Your task to perform on an android device: turn off picture-in-picture Image 0: 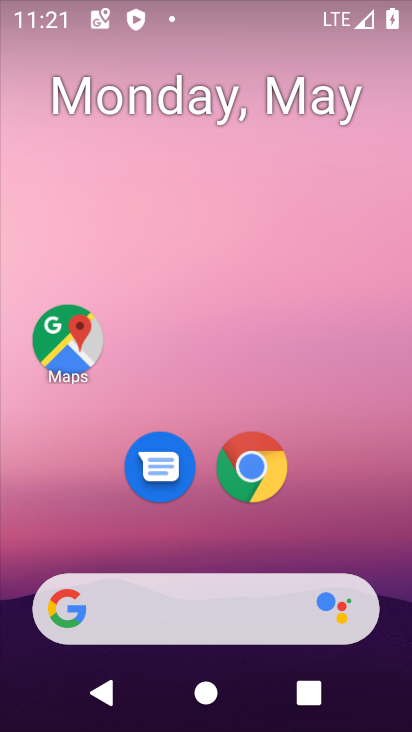
Step 0: click (244, 471)
Your task to perform on an android device: turn off picture-in-picture Image 1: 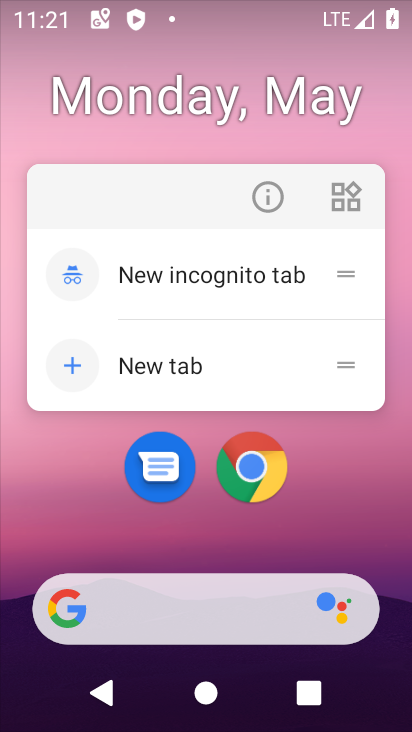
Step 1: click (270, 199)
Your task to perform on an android device: turn off picture-in-picture Image 2: 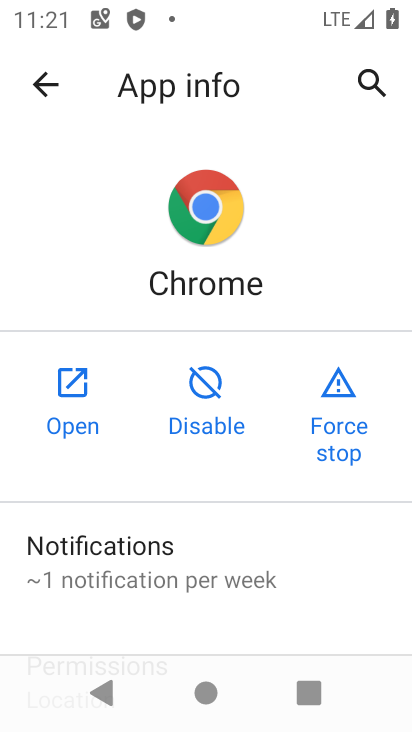
Step 2: drag from (250, 624) to (241, 246)
Your task to perform on an android device: turn off picture-in-picture Image 3: 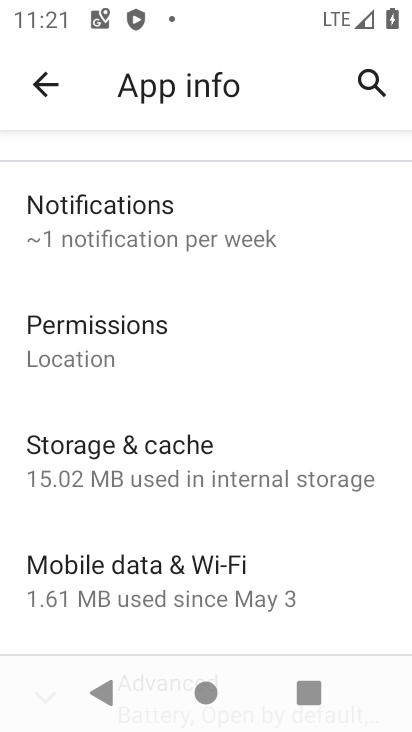
Step 3: drag from (289, 615) to (302, 296)
Your task to perform on an android device: turn off picture-in-picture Image 4: 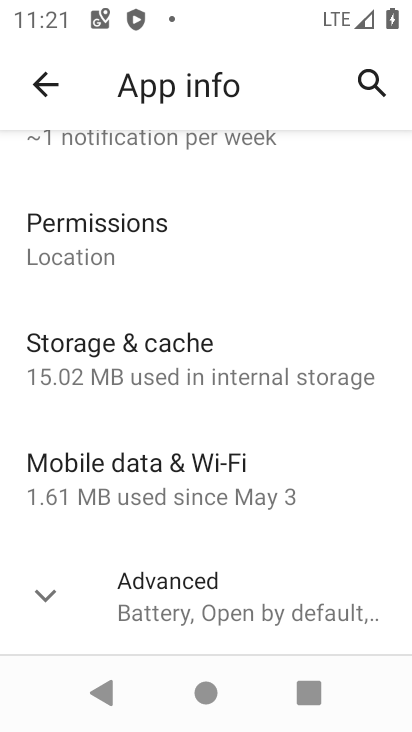
Step 4: click (33, 600)
Your task to perform on an android device: turn off picture-in-picture Image 5: 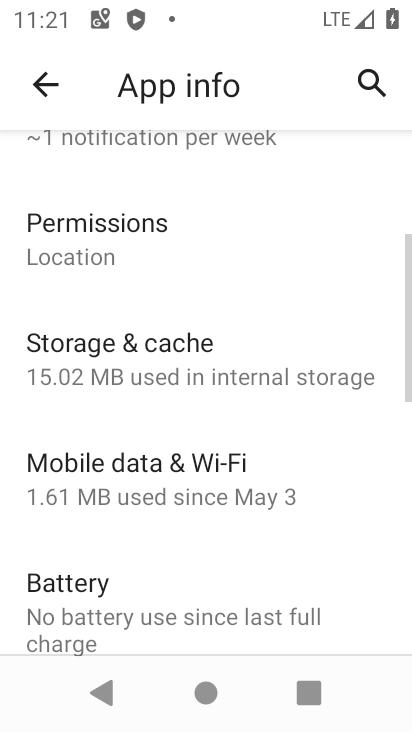
Step 5: drag from (298, 590) to (299, 223)
Your task to perform on an android device: turn off picture-in-picture Image 6: 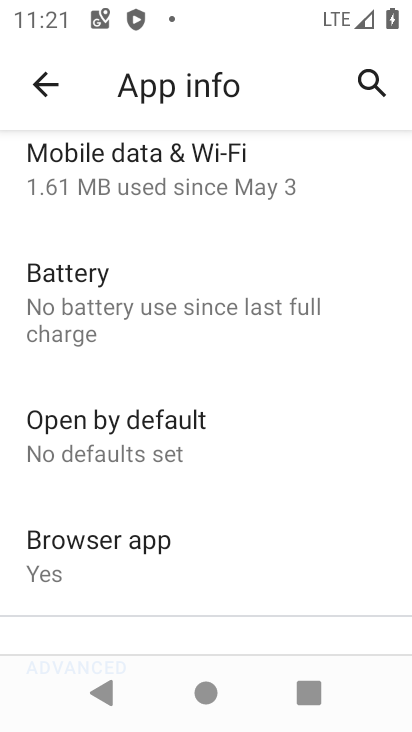
Step 6: drag from (270, 589) to (296, 219)
Your task to perform on an android device: turn off picture-in-picture Image 7: 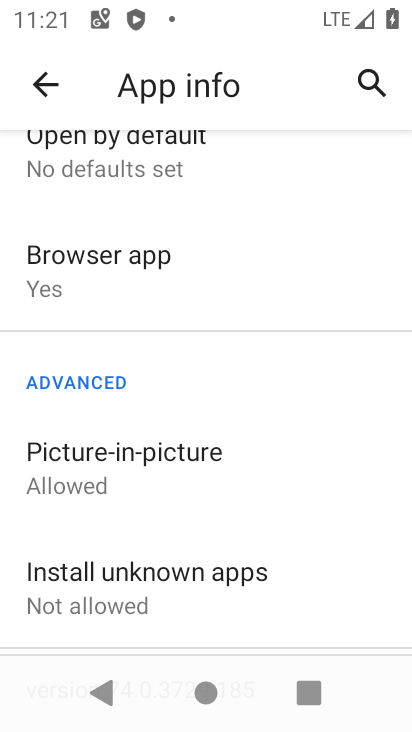
Step 7: click (89, 462)
Your task to perform on an android device: turn off picture-in-picture Image 8: 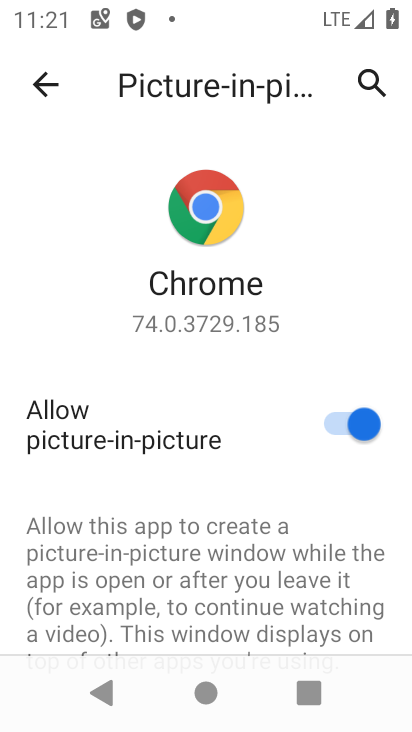
Step 8: click (325, 423)
Your task to perform on an android device: turn off picture-in-picture Image 9: 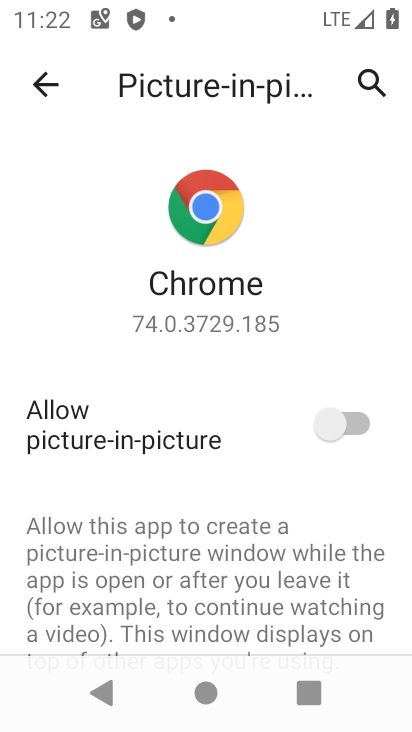
Step 9: task complete